Your task to perform on an android device: Open Android settings Image 0: 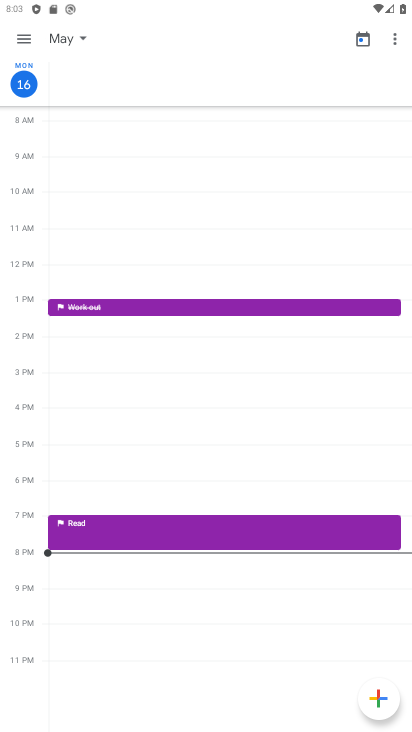
Step 0: press home button
Your task to perform on an android device: Open Android settings Image 1: 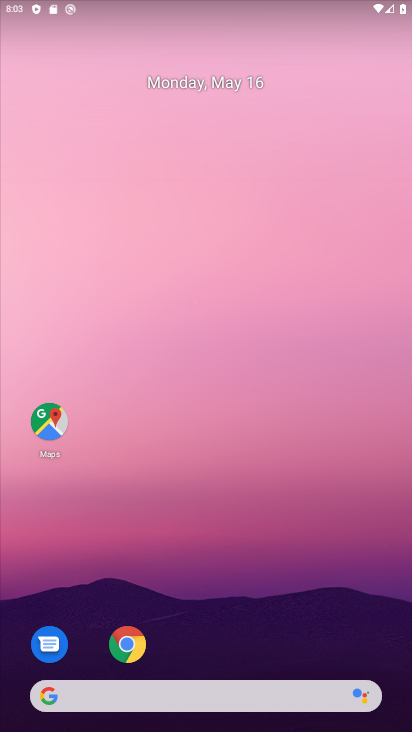
Step 1: drag from (225, 715) to (269, 193)
Your task to perform on an android device: Open Android settings Image 2: 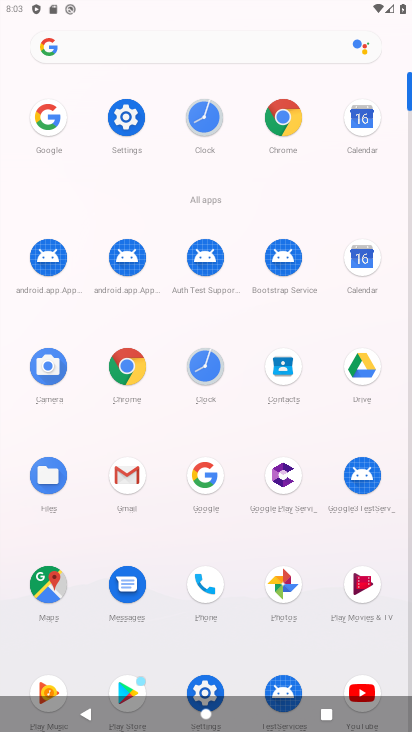
Step 2: click (133, 122)
Your task to perform on an android device: Open Android settings Image 3: 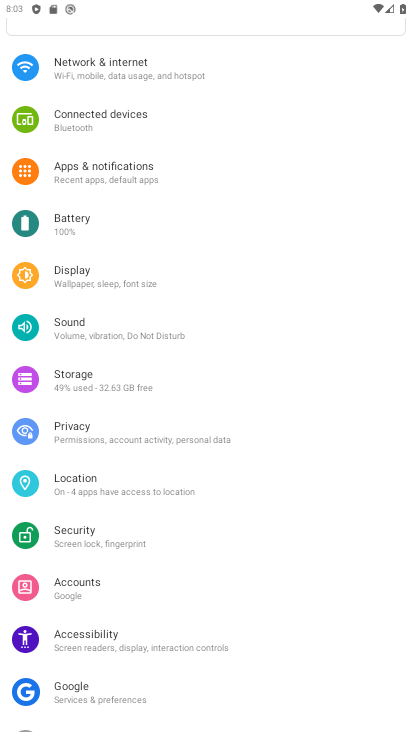
Step 3: task complete